Your task to perform on an android device: read, delete, or share a saved page in the chrome app Image 0: 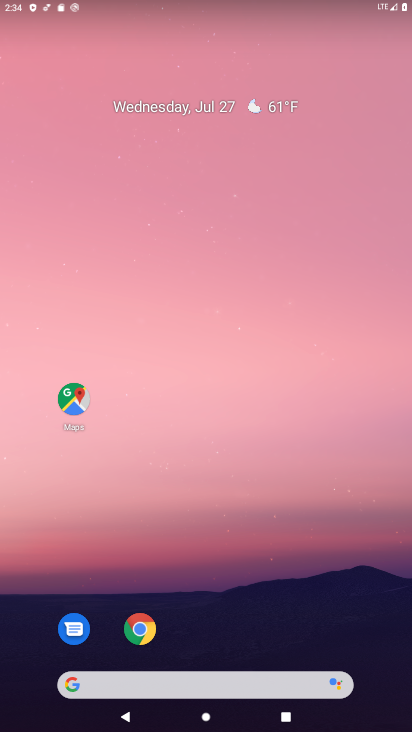
Step 0: click (142, 627)
Your task to perform on an android device: read, delete, or share a saved page in the chrome app Image 1: 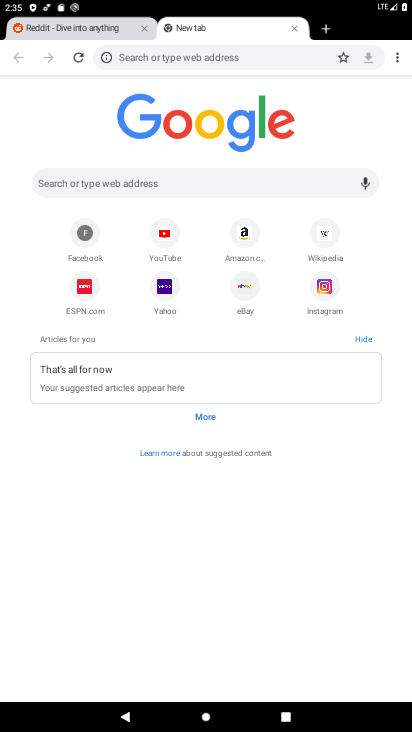
Step 1: click (396, 59)
Your task to perform on an android device: read, delete, or share a saved page in the chrome app Image 2: 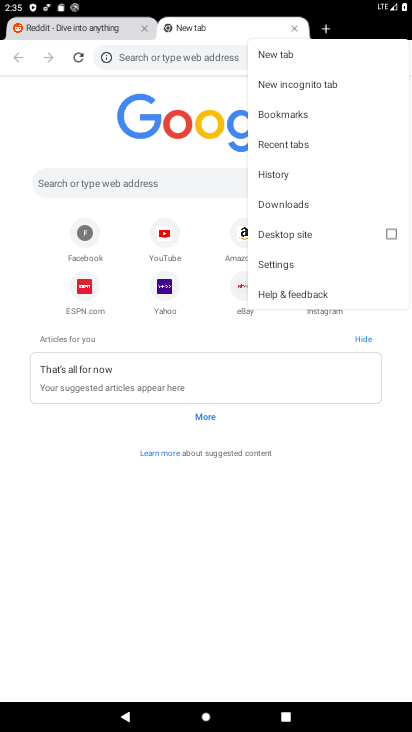
Step 2: click (277, 203)
Your task to perform on an android device: read, delete, or share a saved page in the chrome app Image 3: 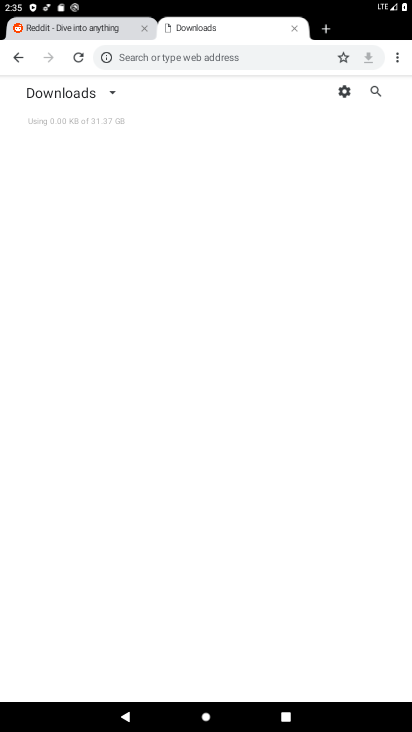
Step 3: click (110, 94)
Your task to perform on an android device: read, delete, or share a saved page in the chrome app Image 4: 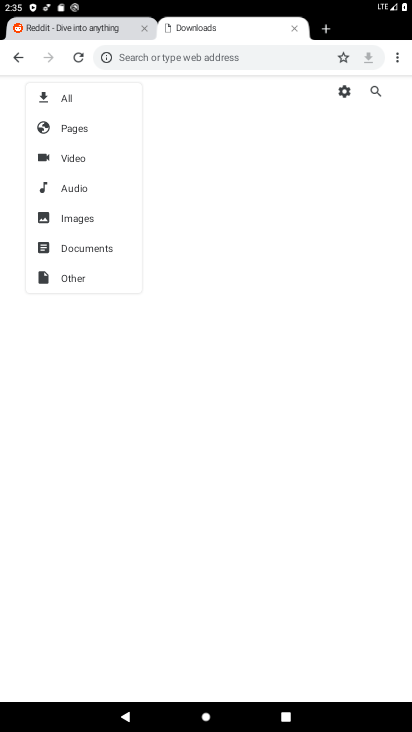
Step 4: click (65, 273)
Your task to perform on an android device: read, delete, or share a saved page in the chrome app Image 5: 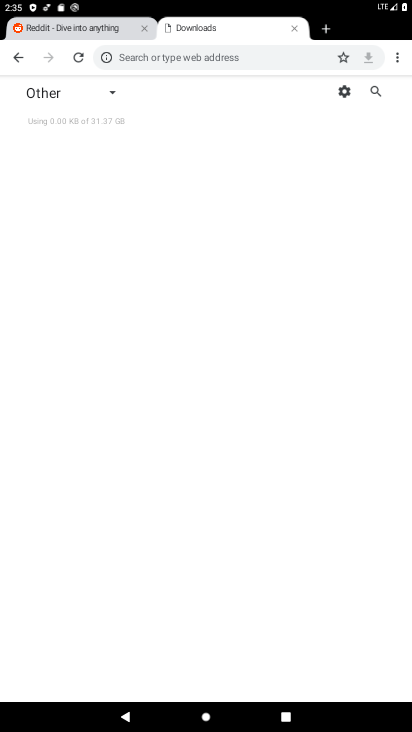
Step 5: task complete